Your task to perform on an android device: When is my next appointment? Image 0: 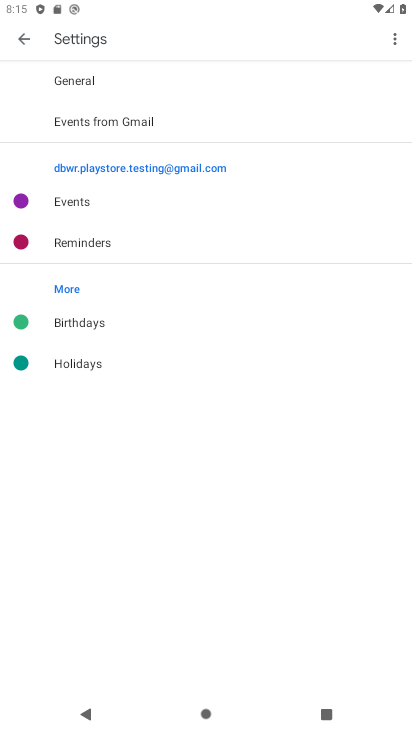
Step 0: press home button
Your task to perform on an android device: When is my next appointment? Image 1: 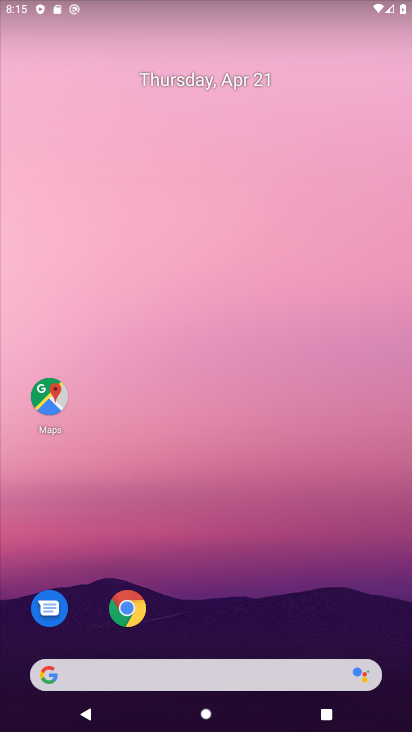
Step 1: click (196, 86)
Your task to perform on an android device: When is my next appointment? Image 2: 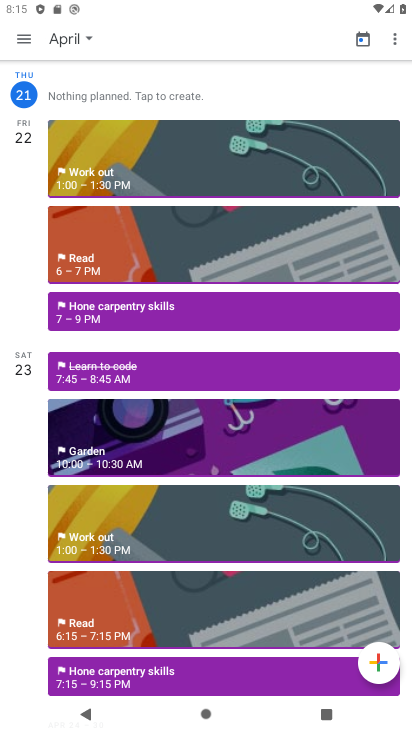
Step 2: task complete